Your task to perform on an android device: turn off improve location accuracy Image 0: 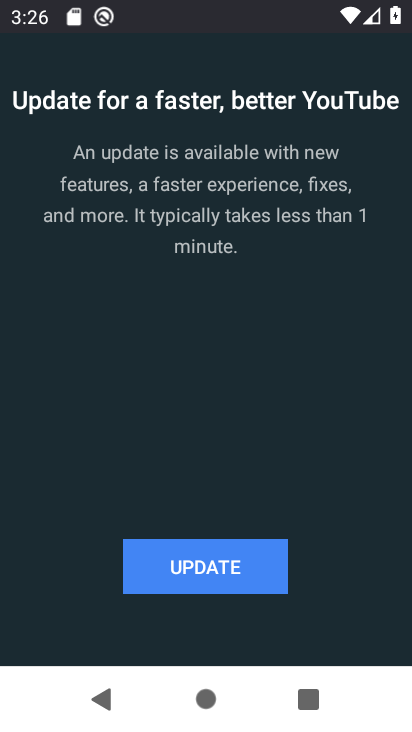
Step 0: press home button
Your task to perform on an android device: turn off improve location accuracy Image 1: 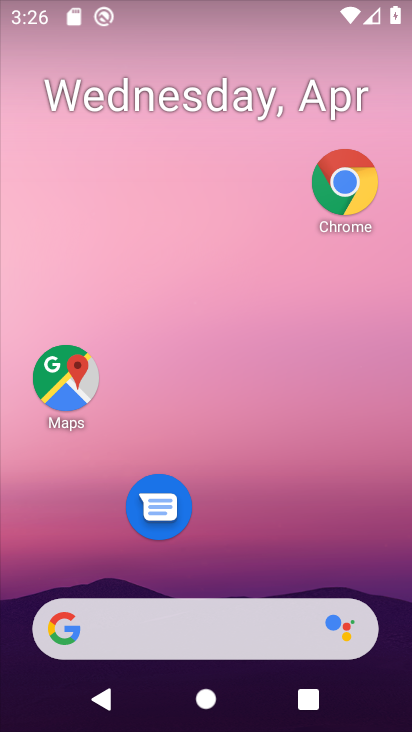
Step 1: drag from (213, 564) to (241, 12)
Your task to perform on an android device: turn off improve location accuracy Image 2: 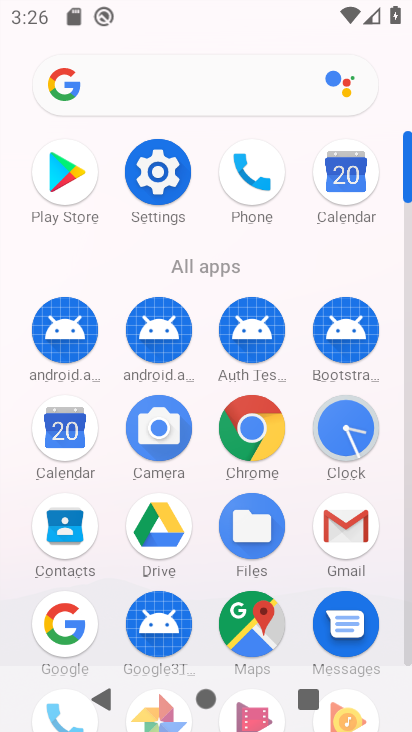
Step 2: click (156, 167)
Your task to perform on an android device: turn off improve location accuracy Image 3: 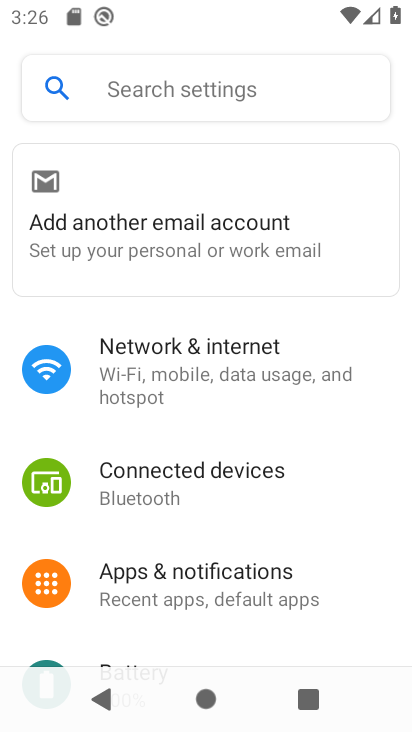
Step 3: drag from (167, 525) to (183, 263)
Your task to perform on an android device: turn off improve location accuracy Image 4: 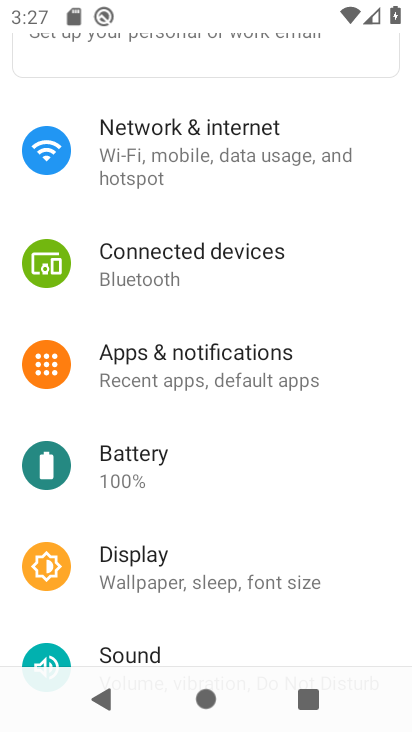
Step 4: drag from (154, 559) to (170, 272)
Your task to perform on an android device: turn off improve location accuracy Image 5: 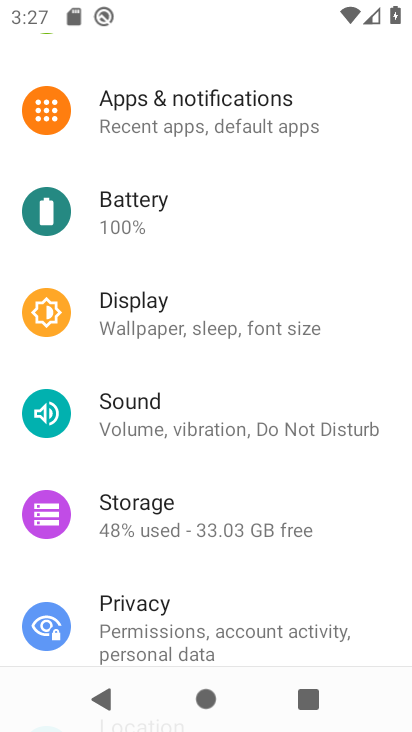
Step 5: drag from (144, 535) to (205, 270)
Your task to perform on an android device: turn off improve location accuracy Image 6: 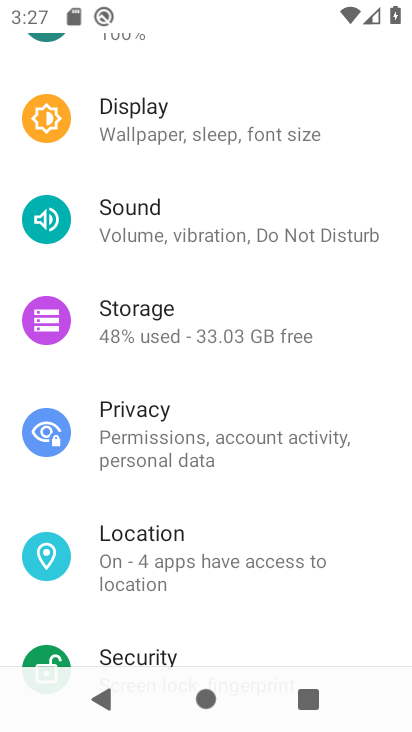
Step 6: click (109, 537)
Your task to perform on an android device: turn off improve location accuracy Image 7: 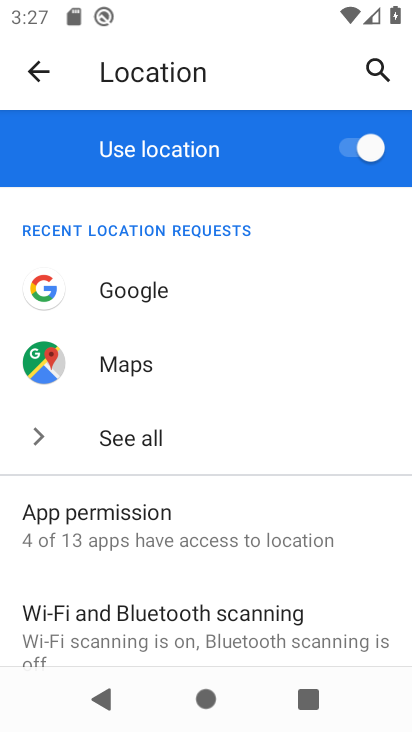
Step 7: drag from (142, 569) to (201, 216)
Your task to perform on an android device: turn off improve location accuracy Image 8: 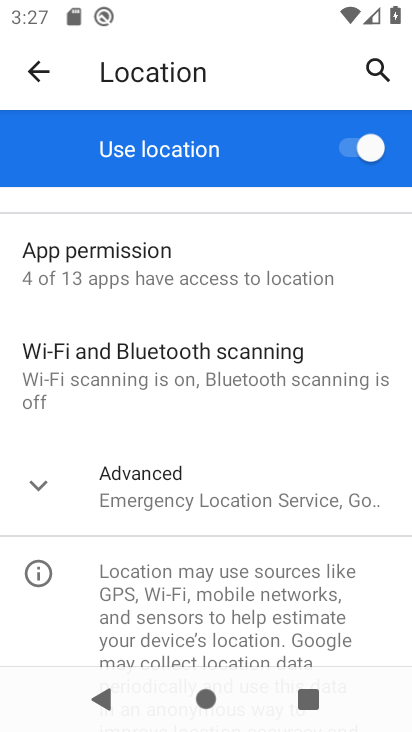
Step 8: click (142, 493)
Your task to perform on an android device: turn off improve location accuracy Image 9: 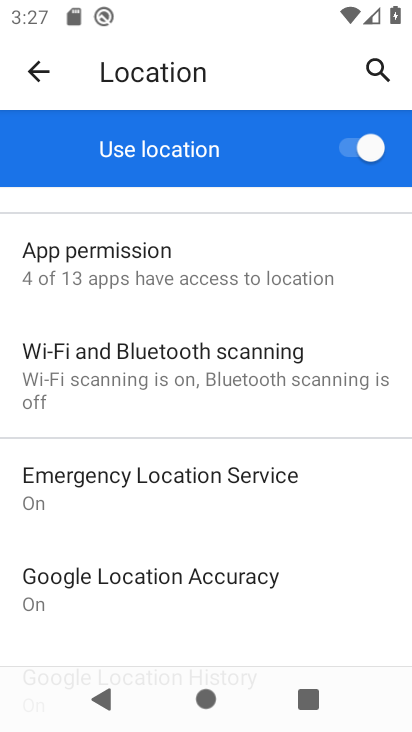
Step 9: click (148, 591)
Your task to perform on an android device: turn off improve location accuracy Image 10: 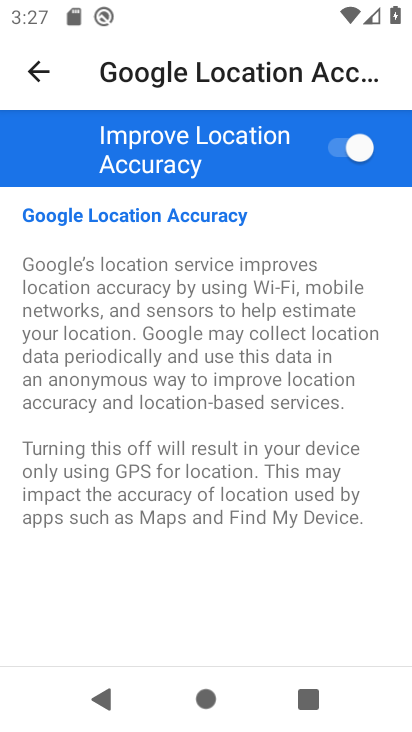
Step 10: click (340, 138)
Your task to perform on an android device: turn off improve location accuracy Image 11: 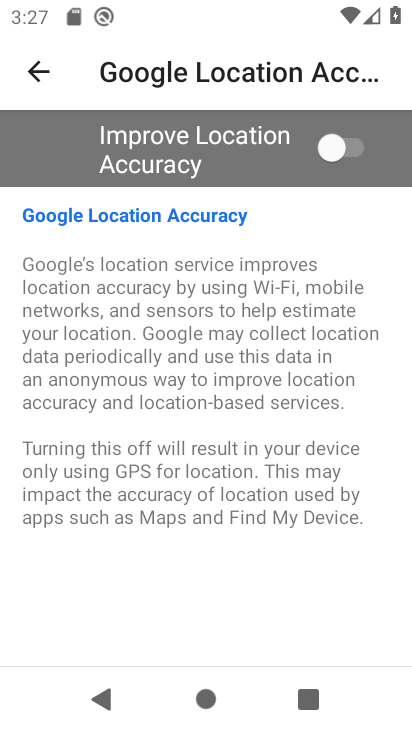
Step 11: task complete